Your task to perform on an android device: How do I get to the nearest Target? Image 0: 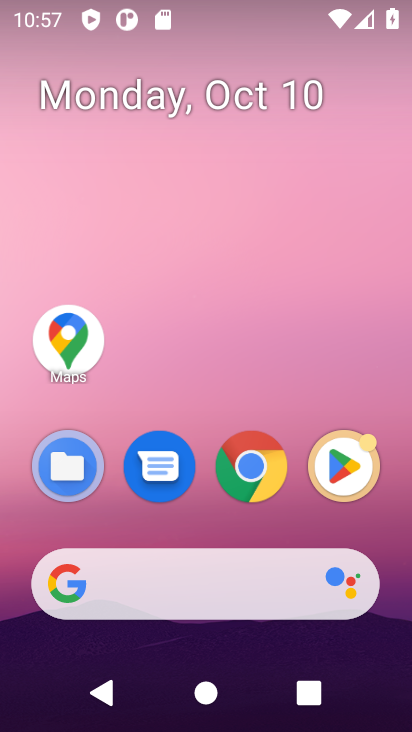
Step 0: click (73, 578)
Your task to perform on an android device: How do I get to the nearest Target? Image 1: 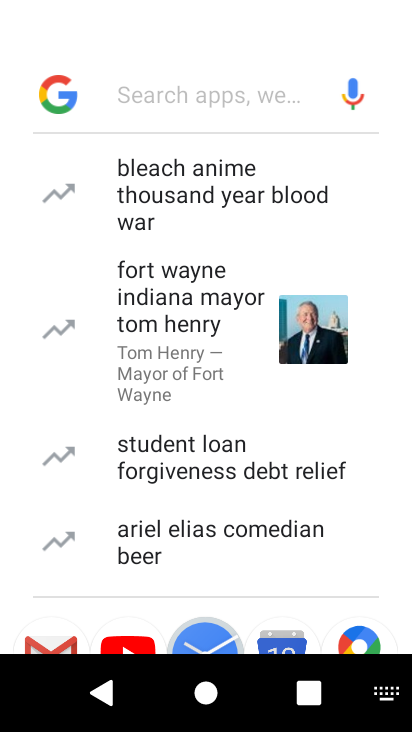
Step 1: type "How do I get to the nearest Target"
Your task to perform on an android device: How do I get to the nearest Target? Image 2: 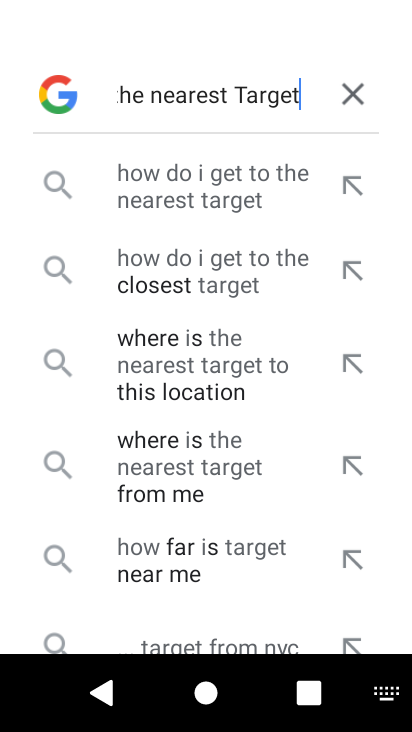
Step 2: press enter
Your task to perform on an android device: How do I get to the nearest Target? Image 3: 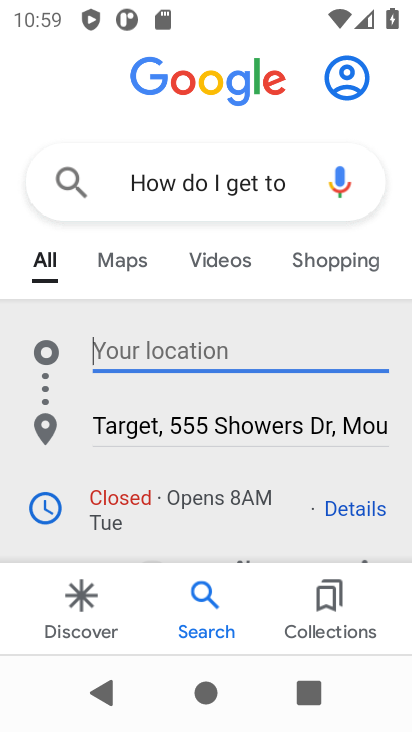
Step 3: task complete